Your task to perform on an android device: Open Google Image 0: 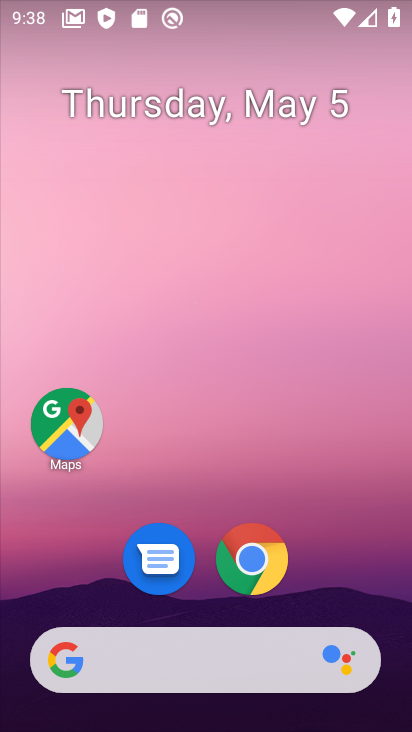
Step 0: drag from (368, 460) to (407, 394)
Your task to perform on an android device: Open Google Image 1: 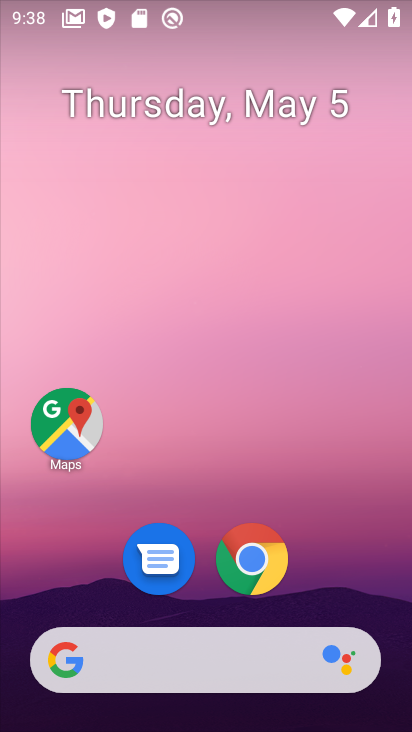
Step 1: drag from (337, 571) to (377, 35)
Your task to perform on an android device: Open Google Image 2: 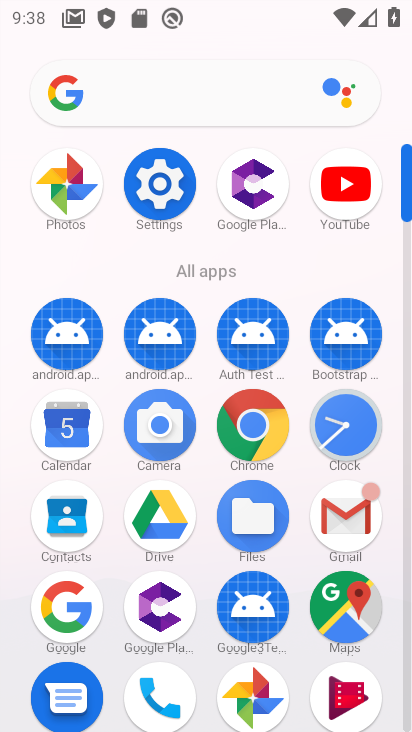
Step 2: drag from (386, 630) to (376, 223)
Your task to perform on an android device: Open Google Image 3: 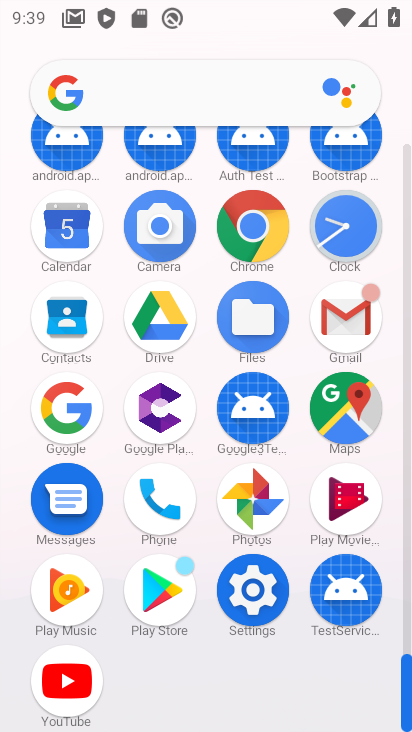
Step 3: click (62, 396)
Your task to perform on an android device: Open Google Image 4: 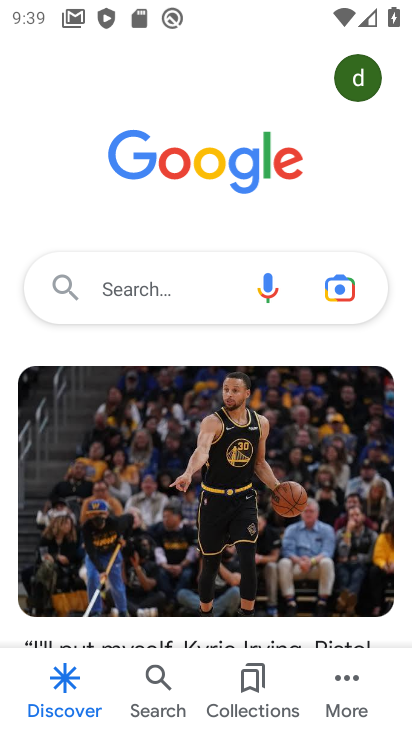
Step 4: task complete